Your task to perform on an android device: empty trash in google photos Image 0: 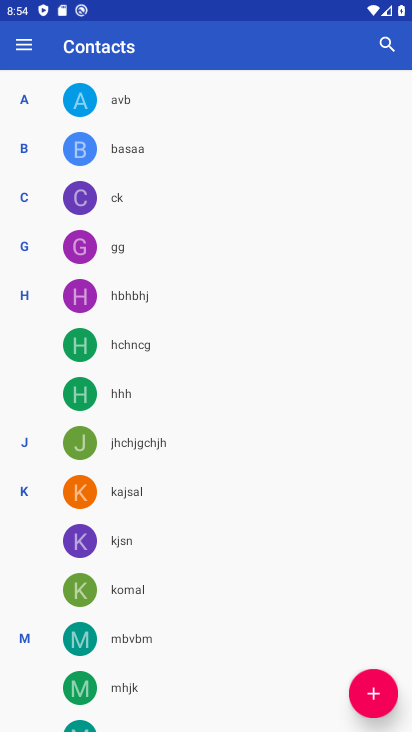
Step 0: press home button
Your task to perform on an android device: empty trash in google photos Image 1: 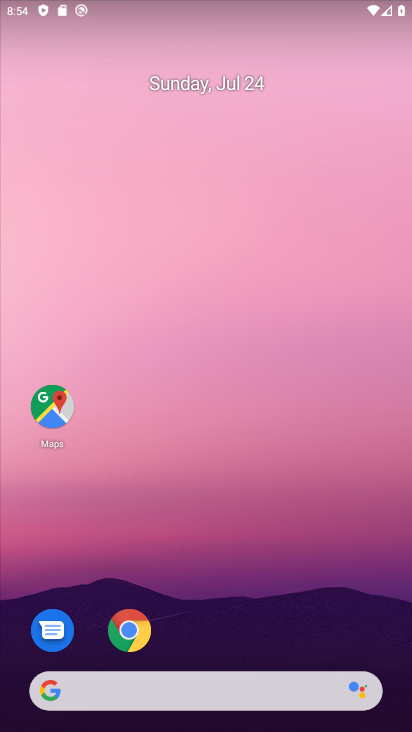
Step 1: drag from (254, 578) to (180, 87)
Your task to perform on an android device: empty trash in google photos Image 2: 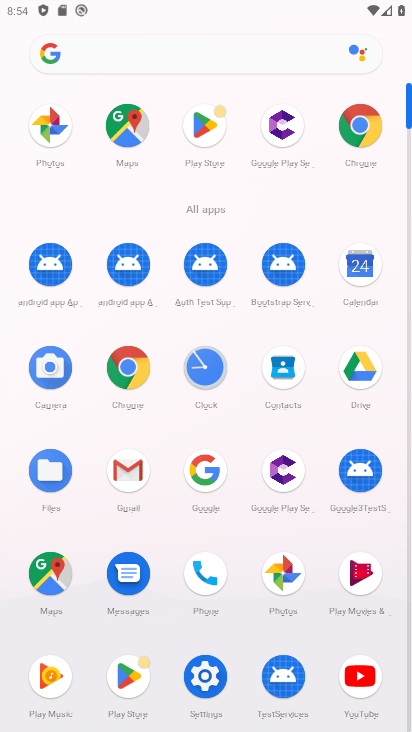
Step 2: click (280, 574)
Your task to perform on an android device: empty trash in google photos Image 3: 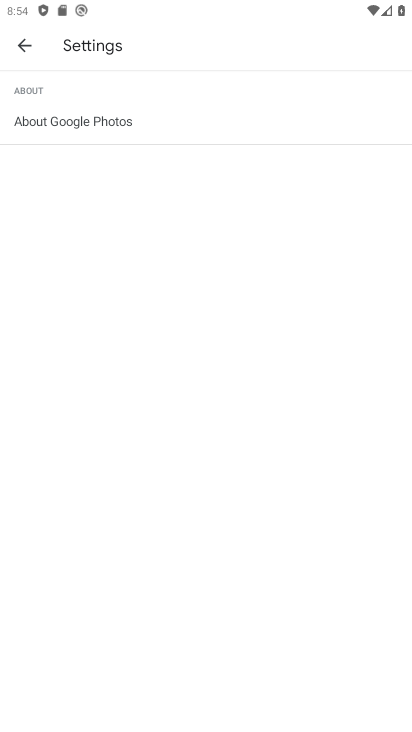
Step 3: click (24, 40)
Your task to perform on an android device: empty trash in google photos Image 4: 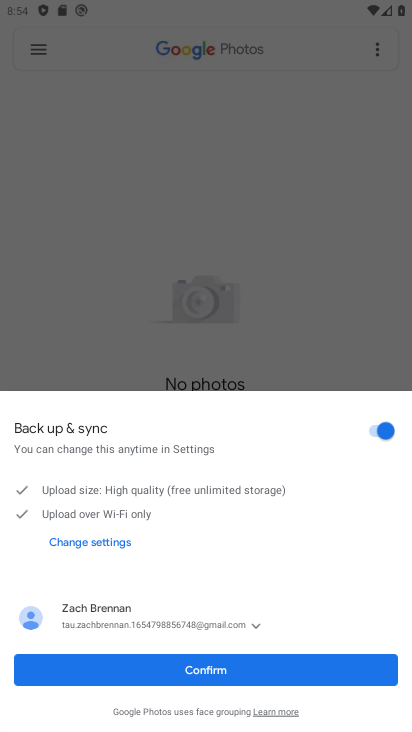
Step 4: click (247, 661)
Your task to perform on an android device: empty trash in google photos Image 5: 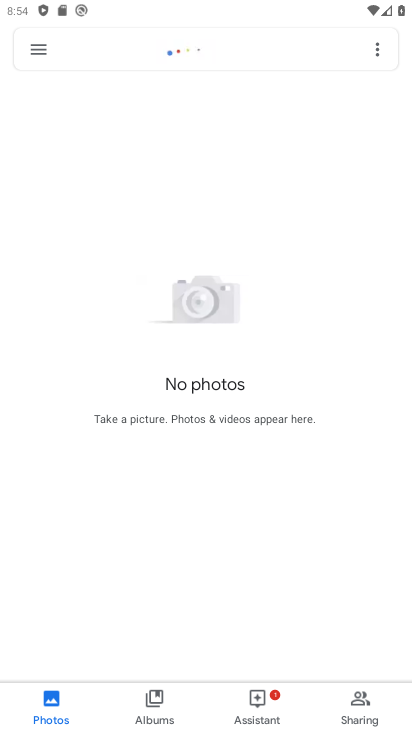
Step 5: click (39, 46)
Your task to perform on an android device: empty trash in google photos Image 6: 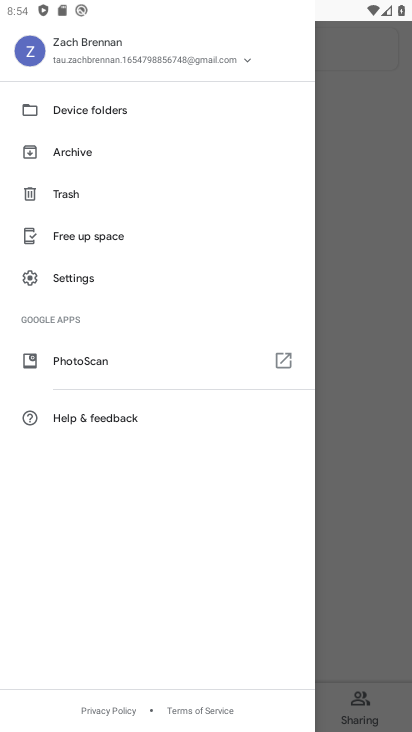
Step 6: click (58, 188)
Your task to perform on an android device: empty trash in google photos Image 7: 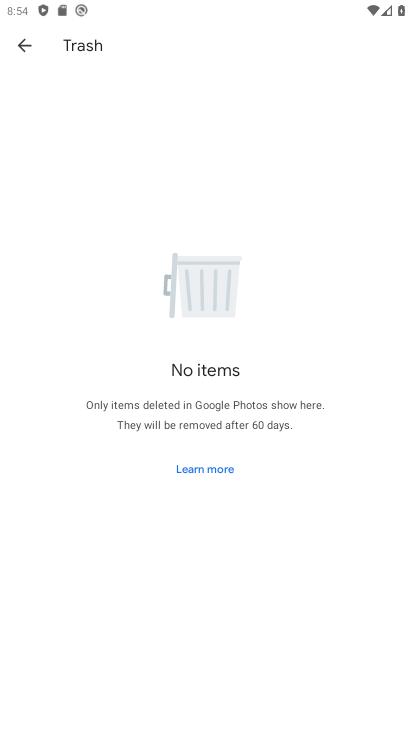
Step 7: task complete